Your task to perform on an android device: open app "Skype" Image 0: 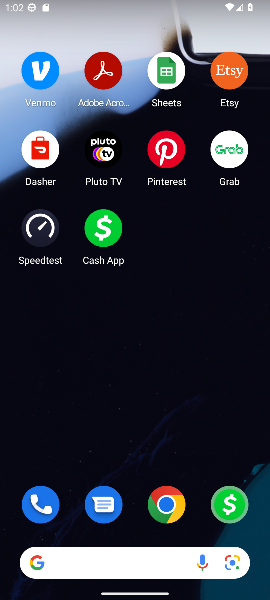
Step 0: drag from (165, 553) to (173, 84)
Your task to perform on an android device: open app "Skype" Image 1: 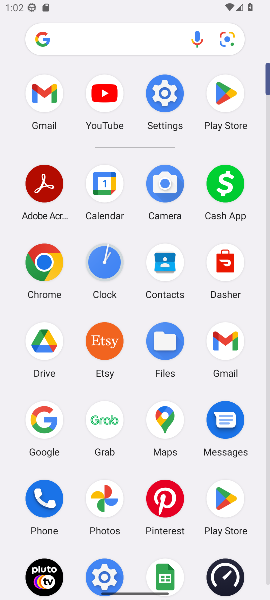
Step 1: click (215, 92)
Your task to perform on an android device: open app "Skype" Image 2: 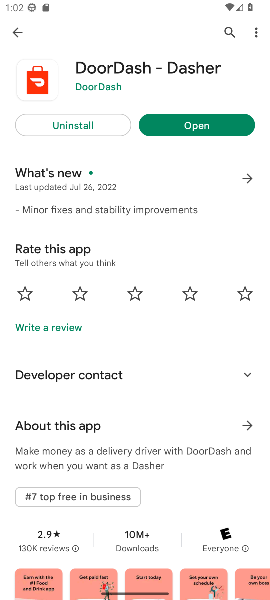
Step 2: click (229, 33)
Your task to perform on an android device: open app "Skype" Image 3: 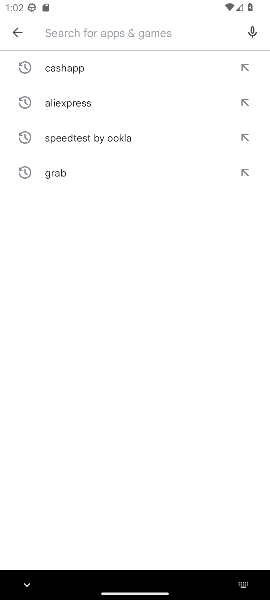
Step 3: type "skype"
Your task to perform on an android device: open app "Skype" Image 4: 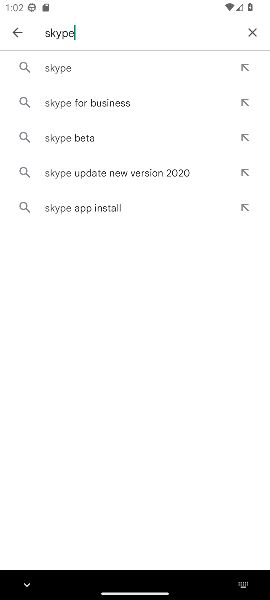
Step 4: click (75, 68)
Your task to perform on an android device: open app "Skype" Image 5: 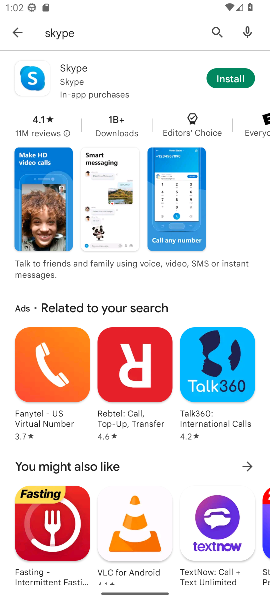
Step 5: task complete